Your task to perform on an android device: turn on bluetooth scan Image 0: 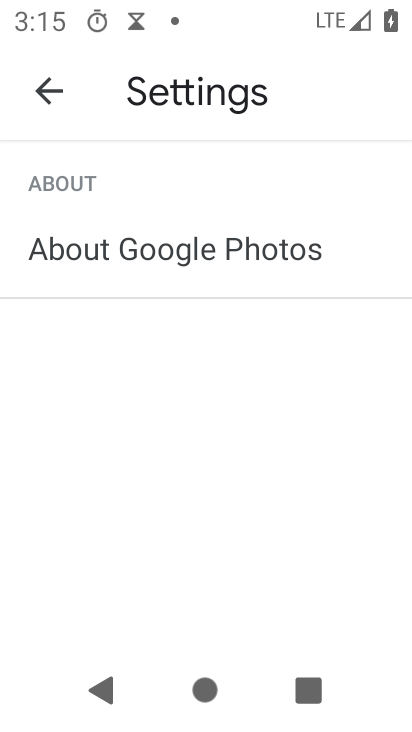
Step 0: press home button
Your task to perform on an android device: turn on bluetooth scan Image 1: 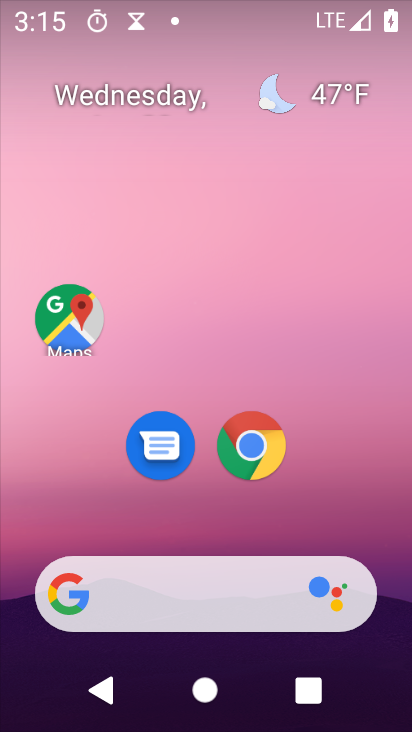
Step 1: drag from (366, 541) to (407, 0)
Your task to perform on an android device: turn on bluetooth scan Image 2: 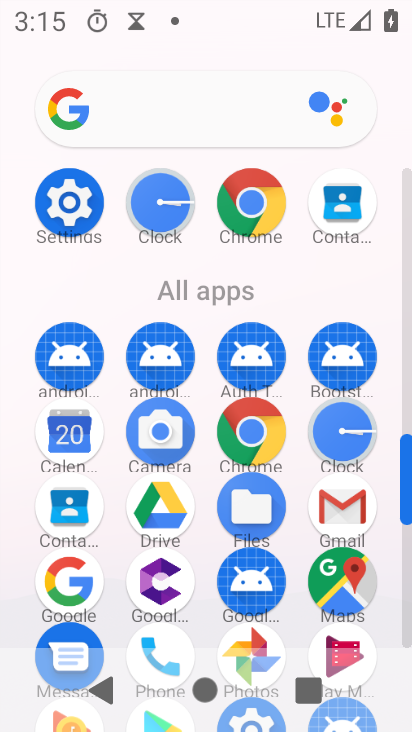
Step 2: click (68, 208)
Your task to perform on an android device: turn on bluetooth scan Image 3: 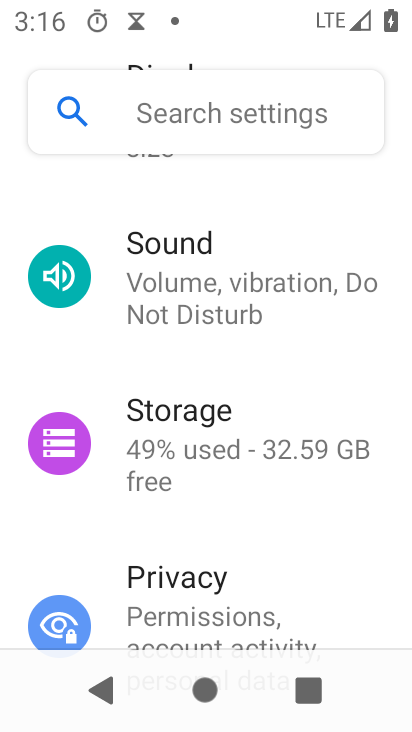
Step 3: drag from (347, 519) to (353, 186)
Your task to perform on an android device: turn on bluetooth scan Image 4: 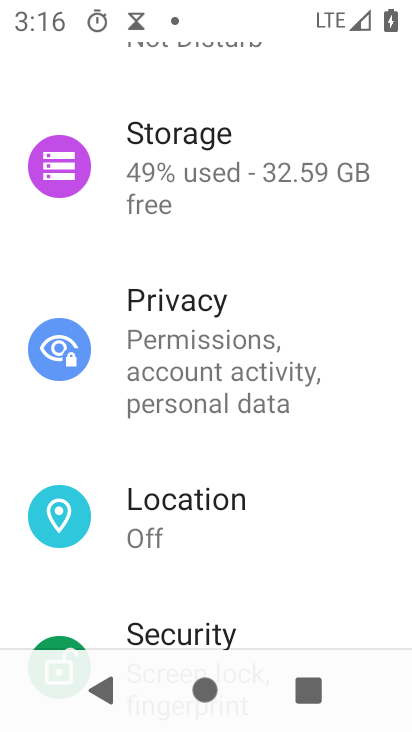
Step 4: click (142, 518)
Your task to perform on an android device: turn on bluetooth scan Image 5: 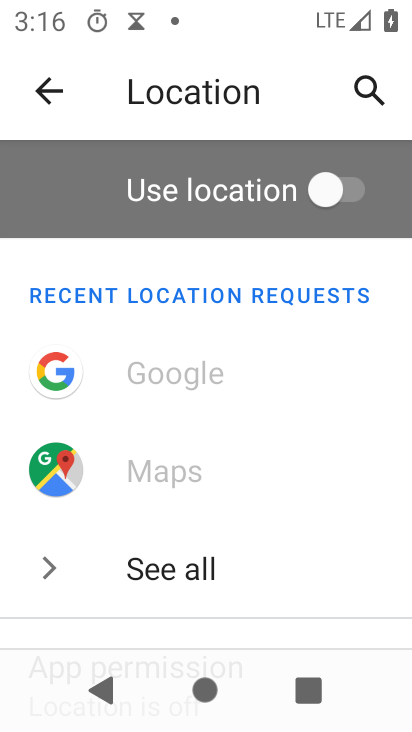
Step 5: drag from (278, 536) to (280, 143)
Your task to perform on an android device: turn on bluetooth scan Image 6: 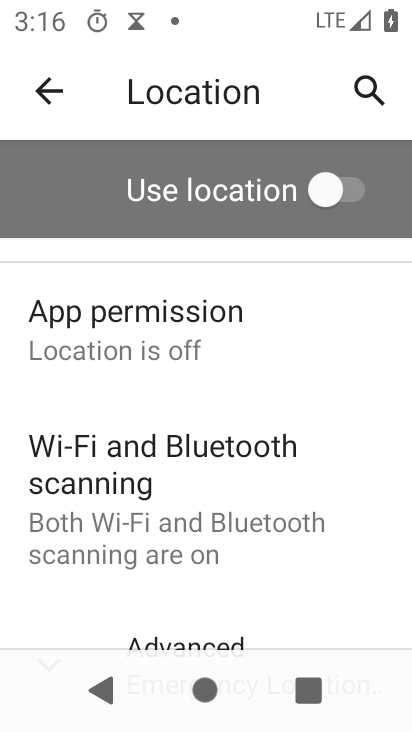
Step 6: click (143, 492)
Your task to perform on an android device: turn on bluetooth scan Image 7: 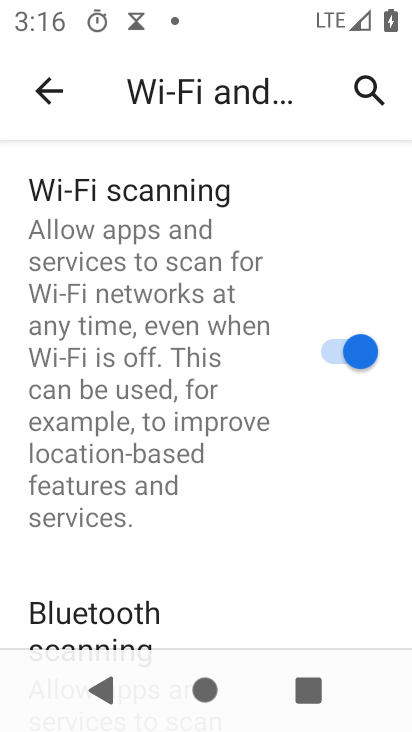
Step 7: task complete